Your task to perform on an android device: delete location history Image 0: 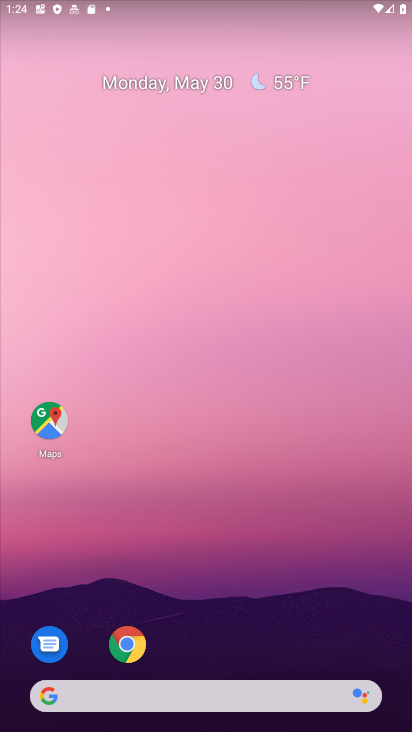
Step 0: drag from (305, 647) to (300, 44)
Your task to perform on an android device: delete location history Image 1: 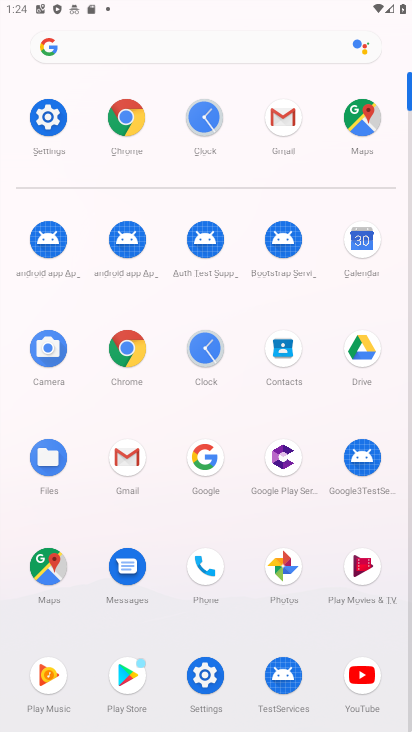
Step 1: click (68, 115)
Your task to perform on an android device: delete location history Image 2: 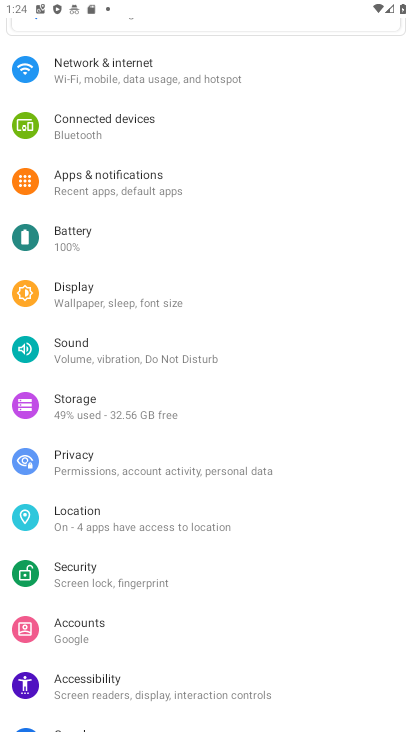
Step 2: click (226, 503)
Your task to perform on an android device: delete location history Image 3: 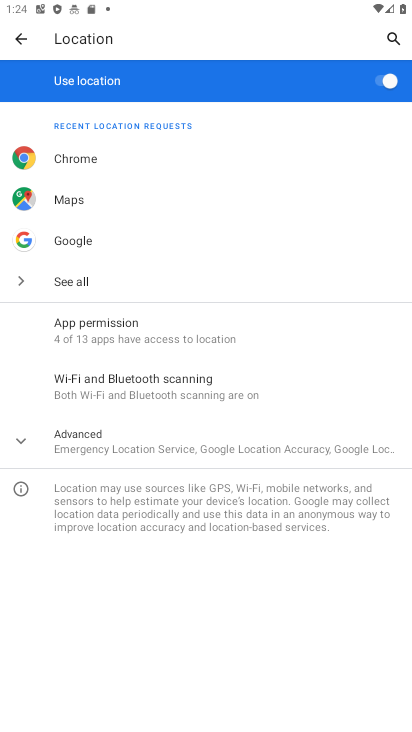
Step 3: click (256, 448)
Your task to perform on an android device: delete location history Image 4: 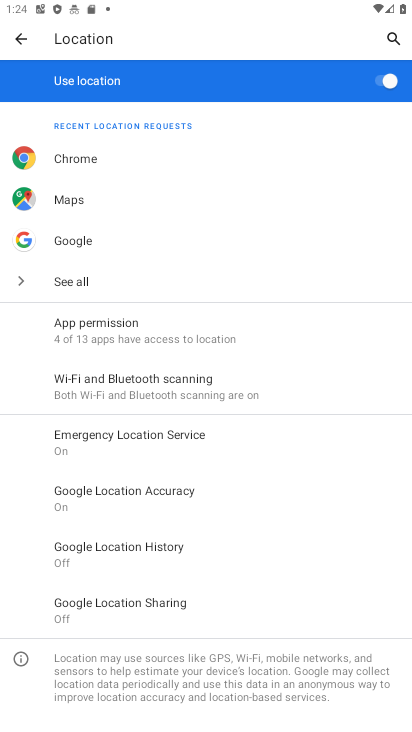
Step 4: click (217, 551)
Your task to perform on an android device: delete location history Image 5: 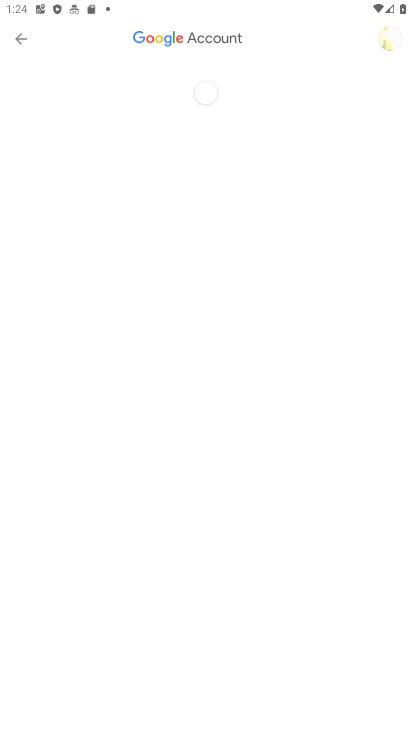
Step 5: task complete